Your task to perform on an android device: Go to Maps Image 0: 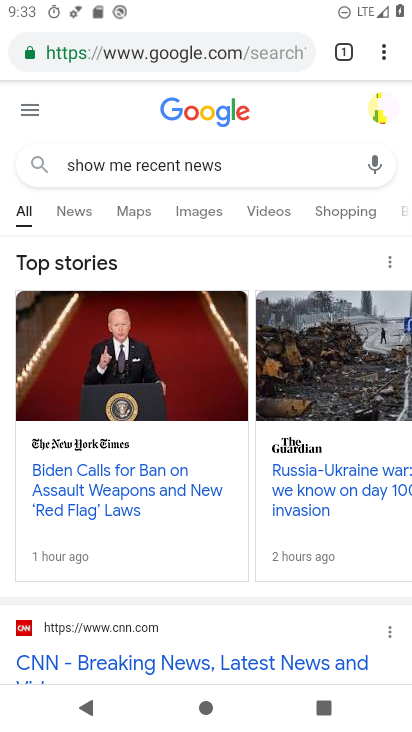
Step 0: press home button
Your task to perform on an android device: Go to Maps Image 1: 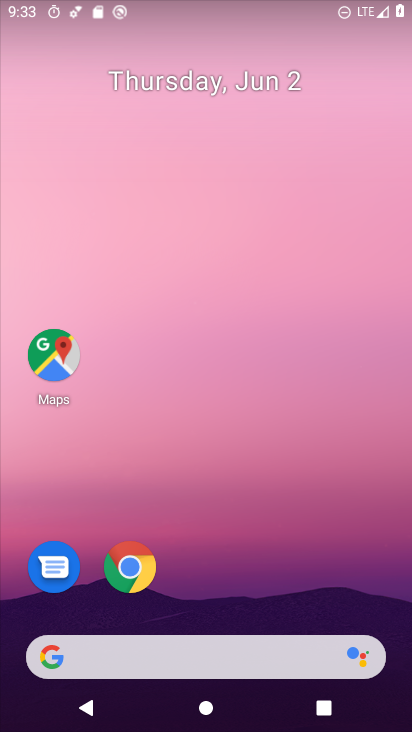
Step 1: drag from (360, 577) to (355, 206)
Your task to perform on an android device: Go to Maps Image 2: 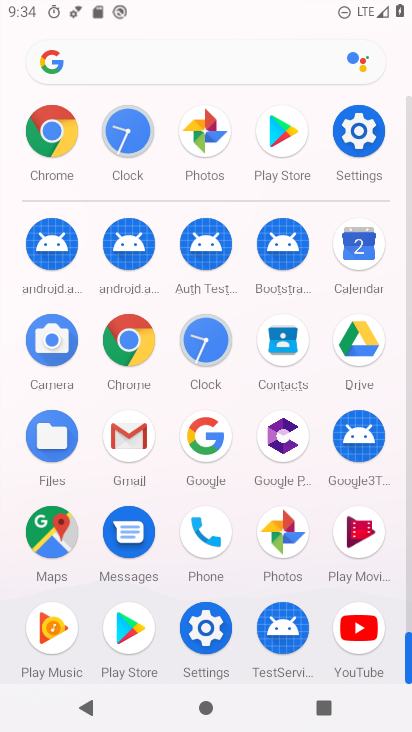
Step 2: click (64, 547)
Your task to perform on an android device: Go to Maps Image 3: 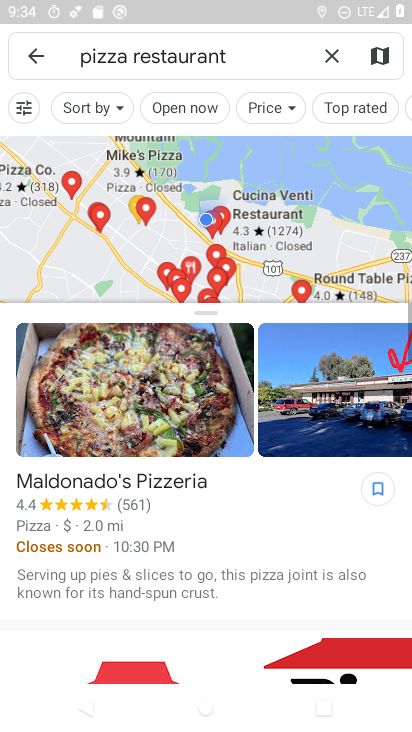
Step 3: task complete